Your task to perform on an android device: Open the stopwatch Image 0: 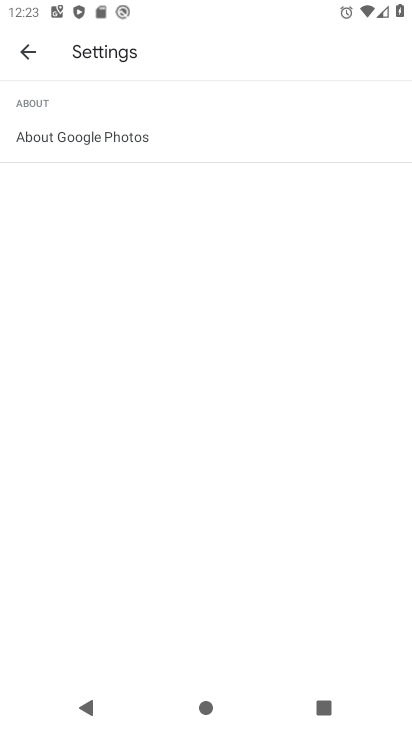
Step 0: press home button
Your task to perform on an android device: Open the stopwatch Image 1: 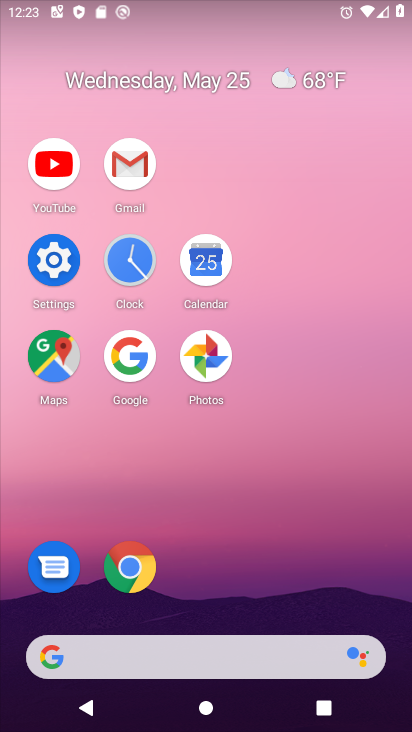
Step 1: click (131, 252)
Your task to perform on an android device: Open the stopwatch Image 2: 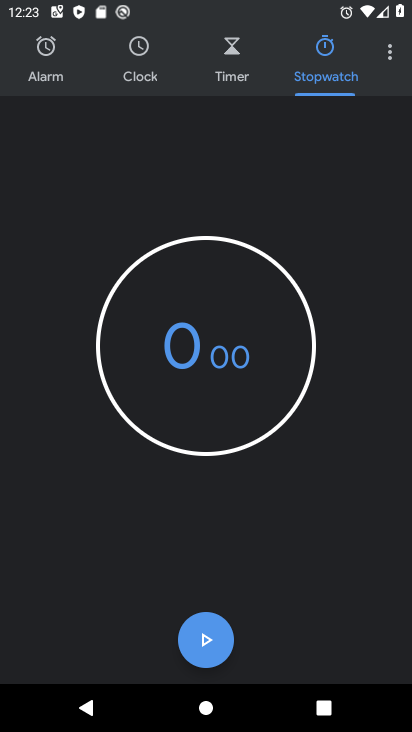
Step 2: task complete